Your task to perform on an android device: What's on the menu at Chick-fil-A? Image 0: 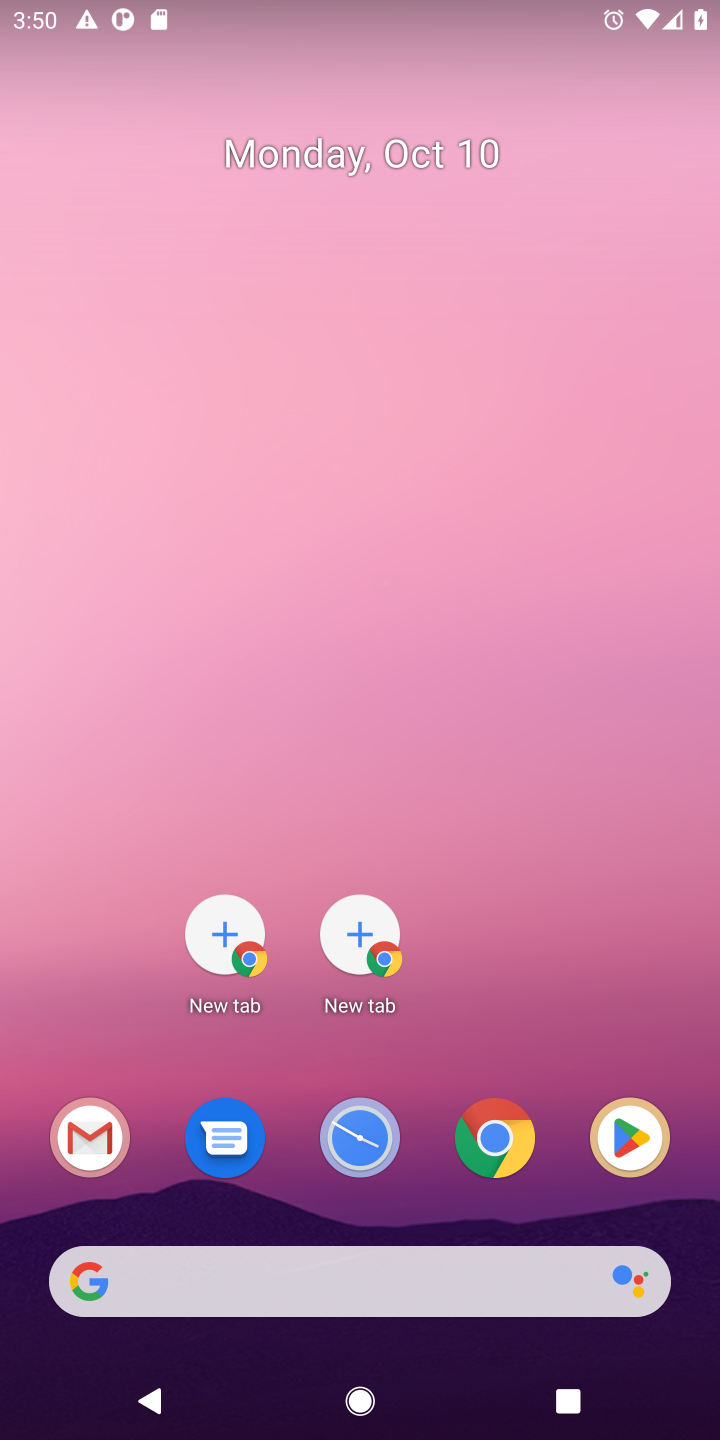
Step 0: click (473, 1152)
Your task to perform on an android device: What's on the menu at Chick-fil-A? Image 1: 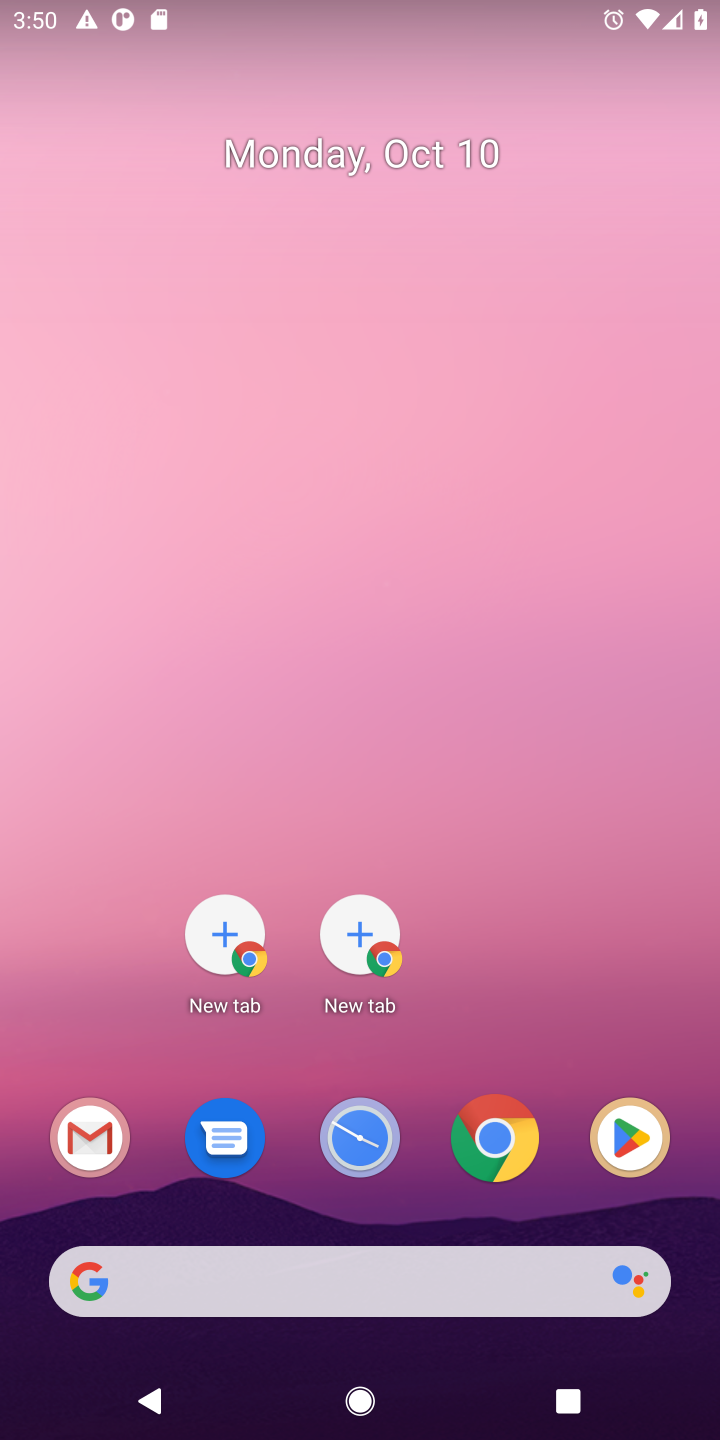
Step 1: click (473, 1152)
Your task to perform on an android device: What's on the menu at Chick-fil-A? Image 2: 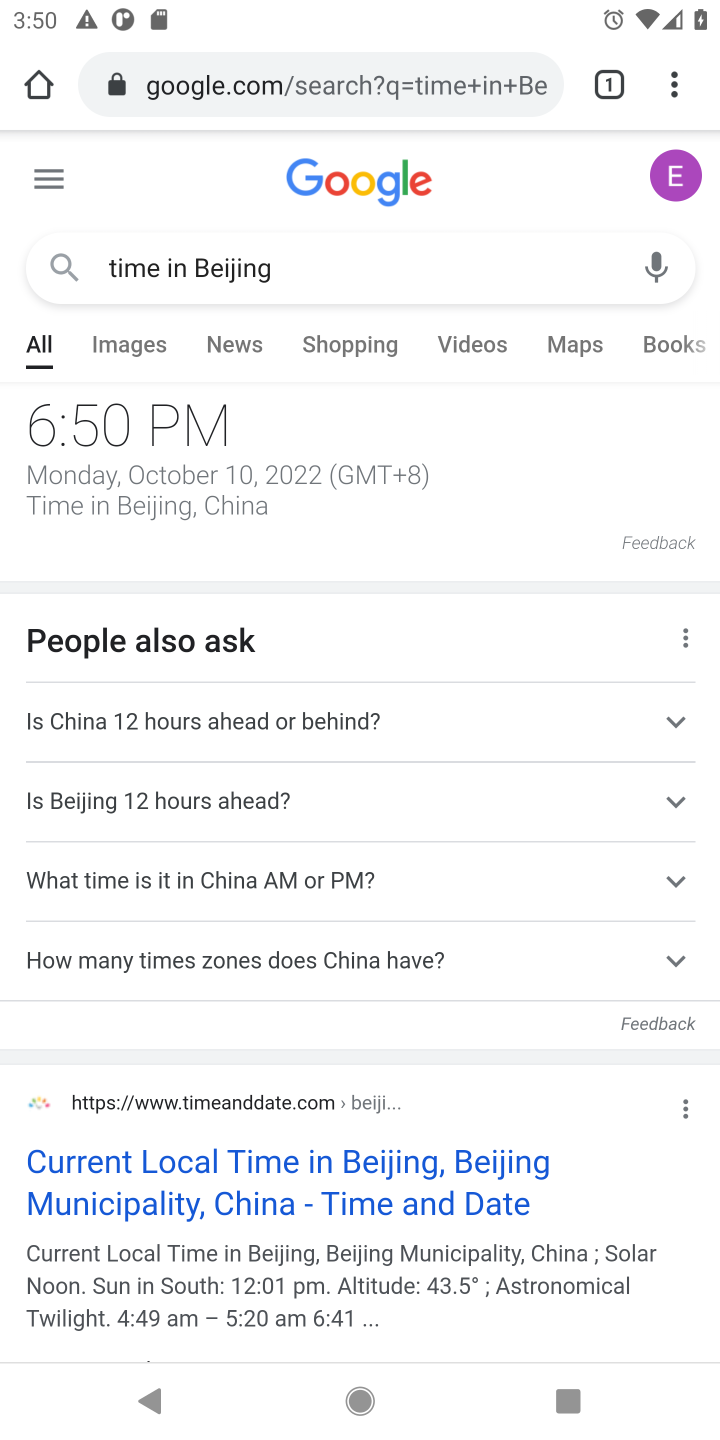
Step 2: click (260, 90)
Your task to perform on an android device: What's on the menu at Chick-fil-A? Image 3: 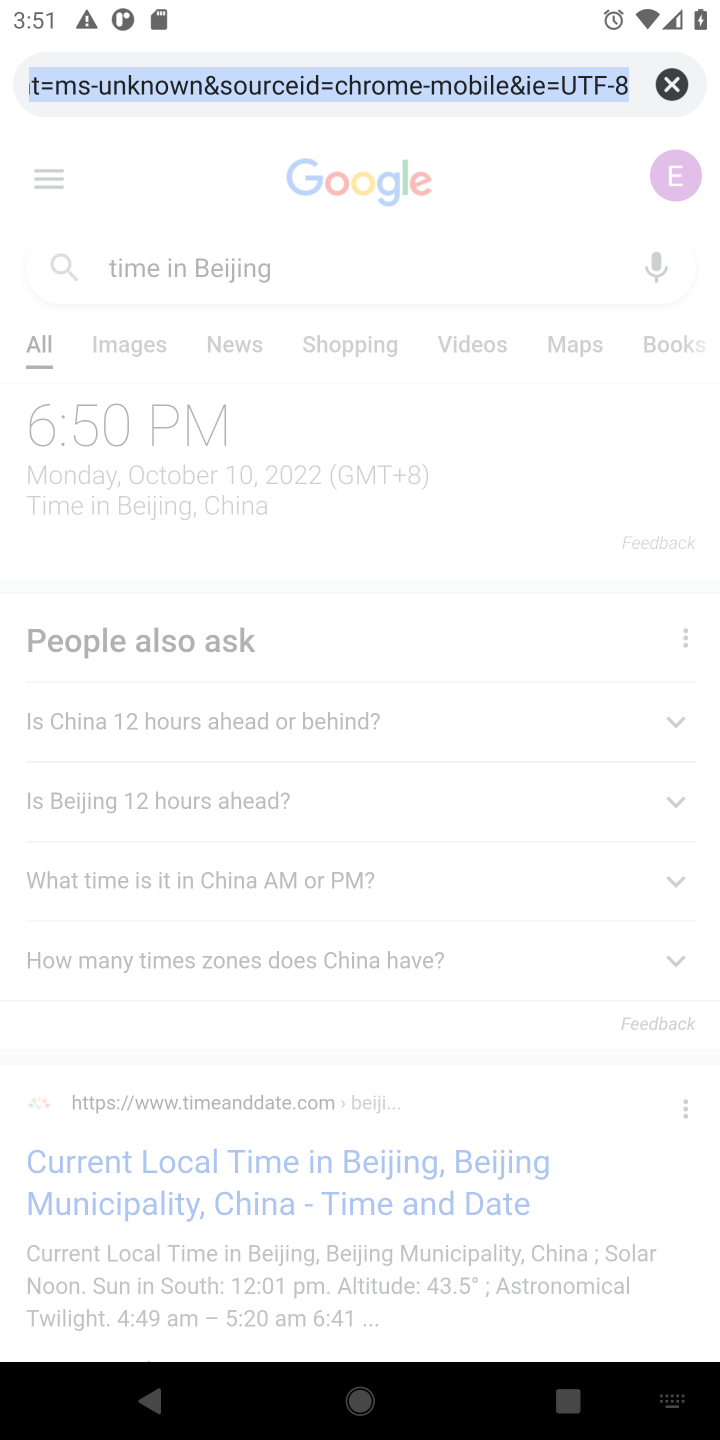
Step 3: type "chick-fil-A"
Your task to perform on an android device: What's on the menu at Chick-fil-A? Image 4: 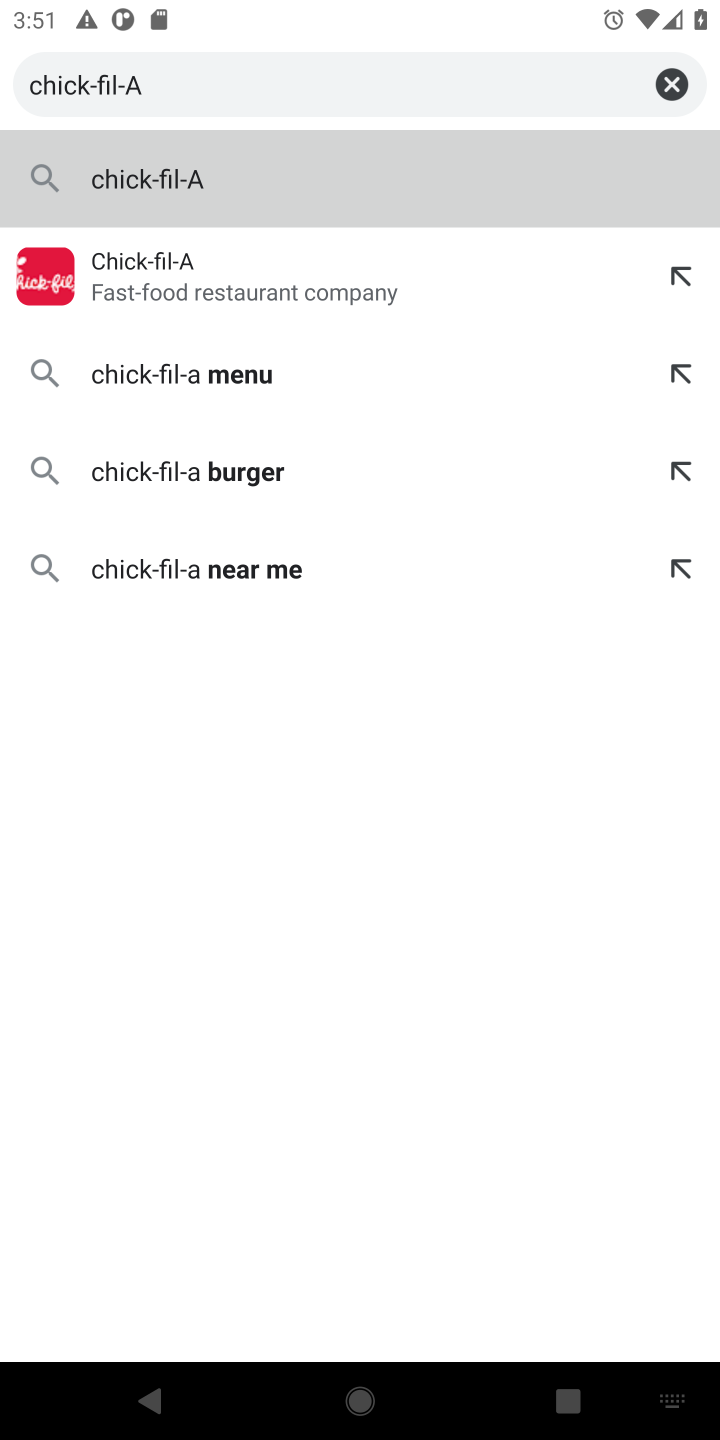
Step 4: click (360, 177)
Your task to perform on an android device: What's on the menu at Chick-fil-A? Image 5: 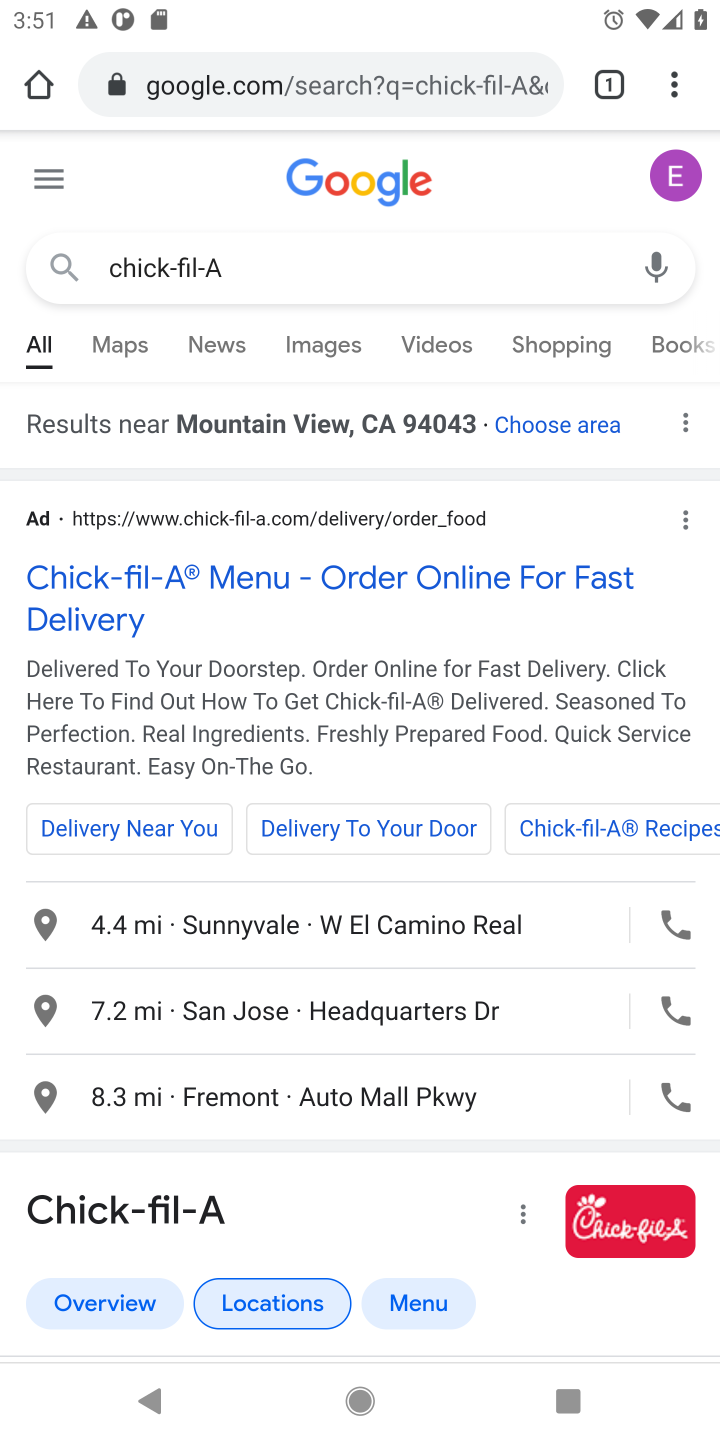
Step 5: click (294, 590)
Your task to perform on an android device: What's on the menu at Chick-fil-A? Image 6: 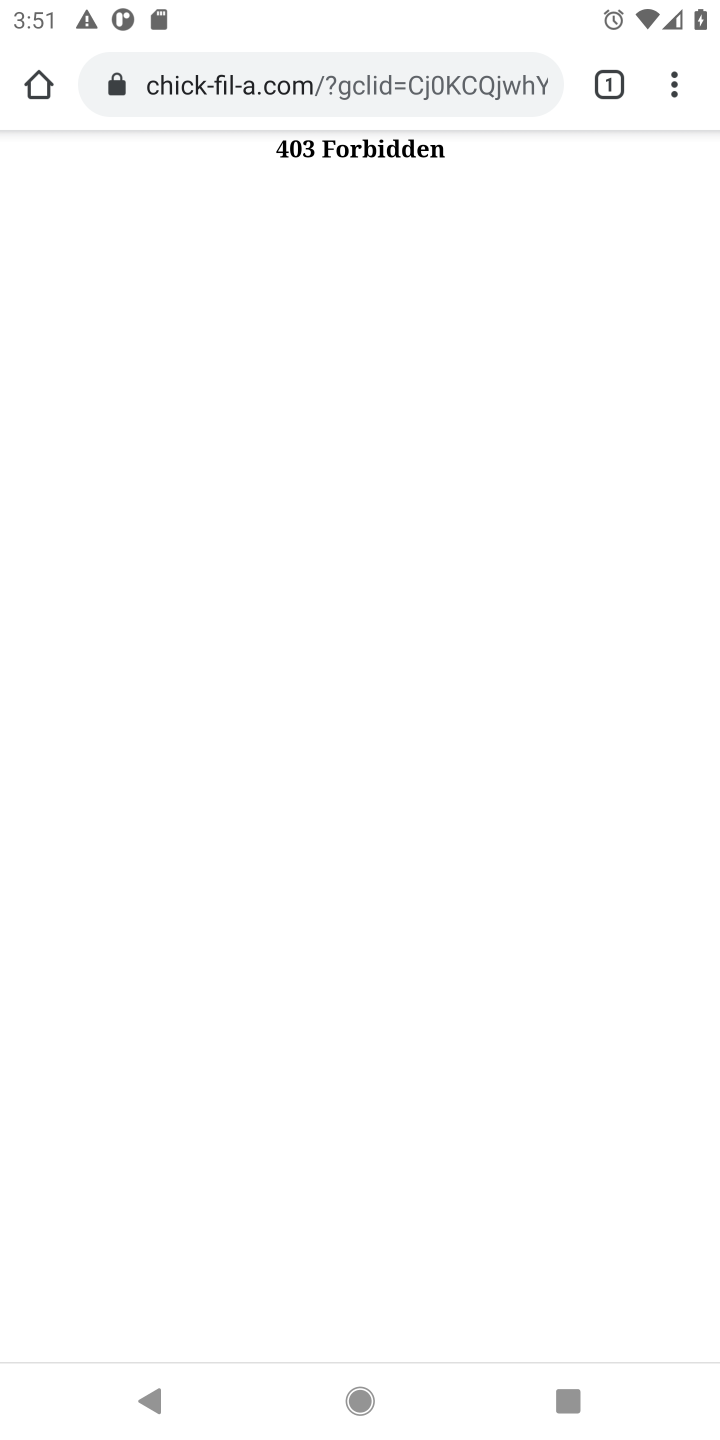
Step 6: press back button
Your task to perform on an android device: What's on the menu at Chick-fil-A? Image 7: 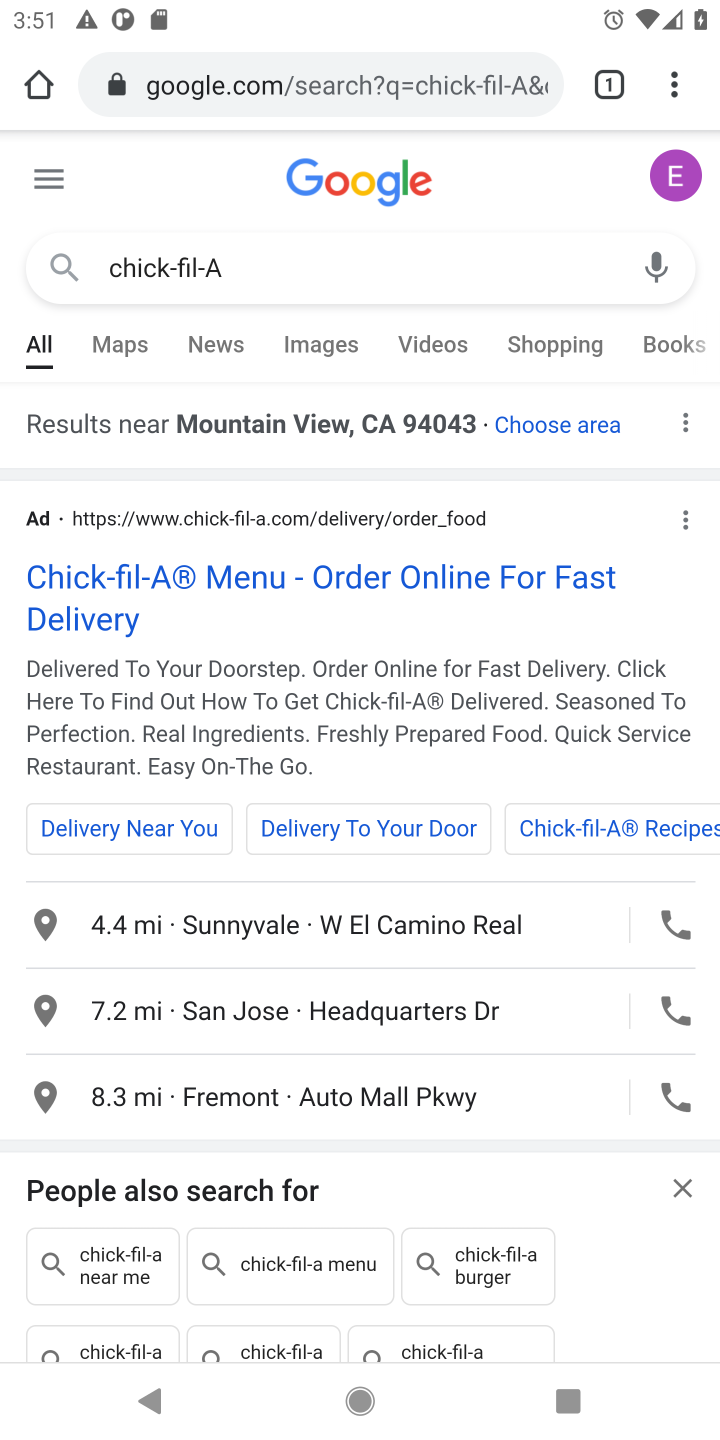
Step 7: drag from (453, 1046) to (498, 452)
Your task to perform on an android device: What's on the menu at Chick-fil-A? Image 8: 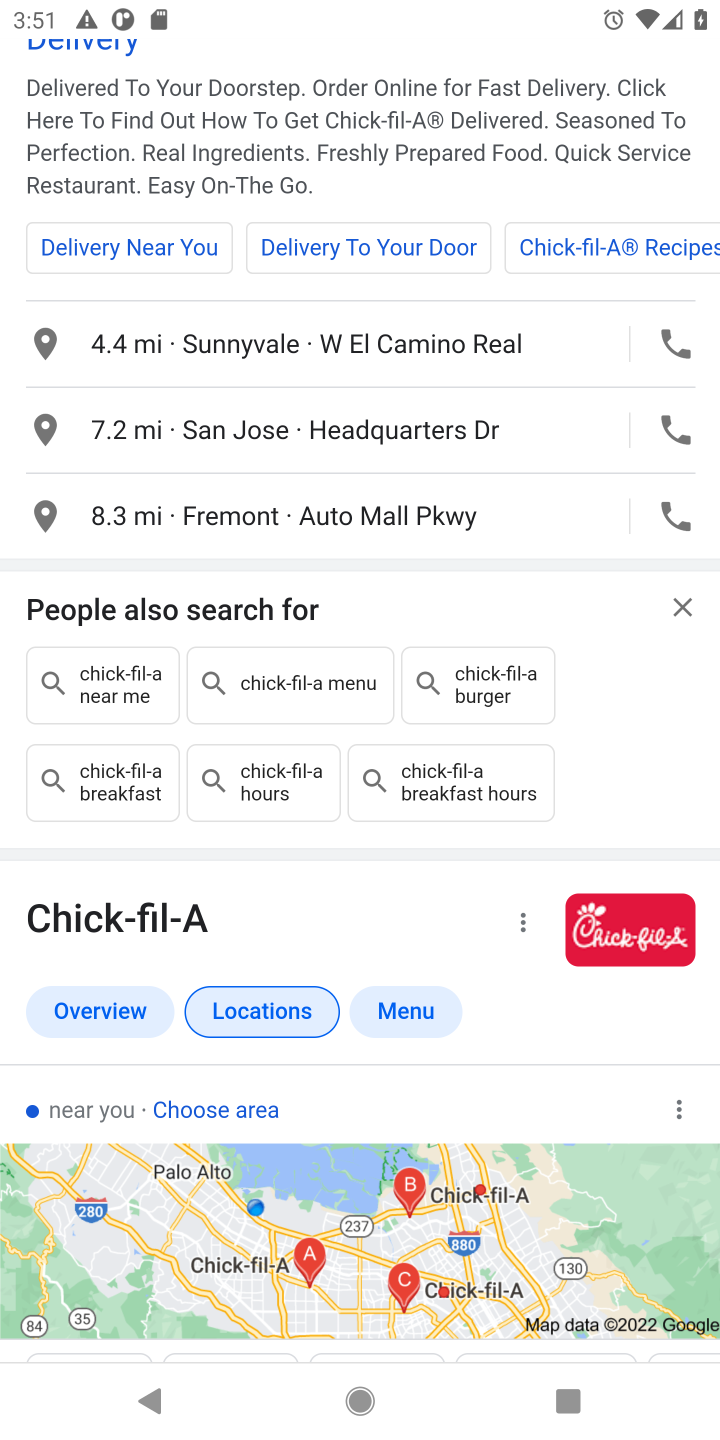
Step 8: drag from (419, 1071) to (371, 432)
Your task to perform on an android device: What's on the menu at Chick-fil-A? Image 9: 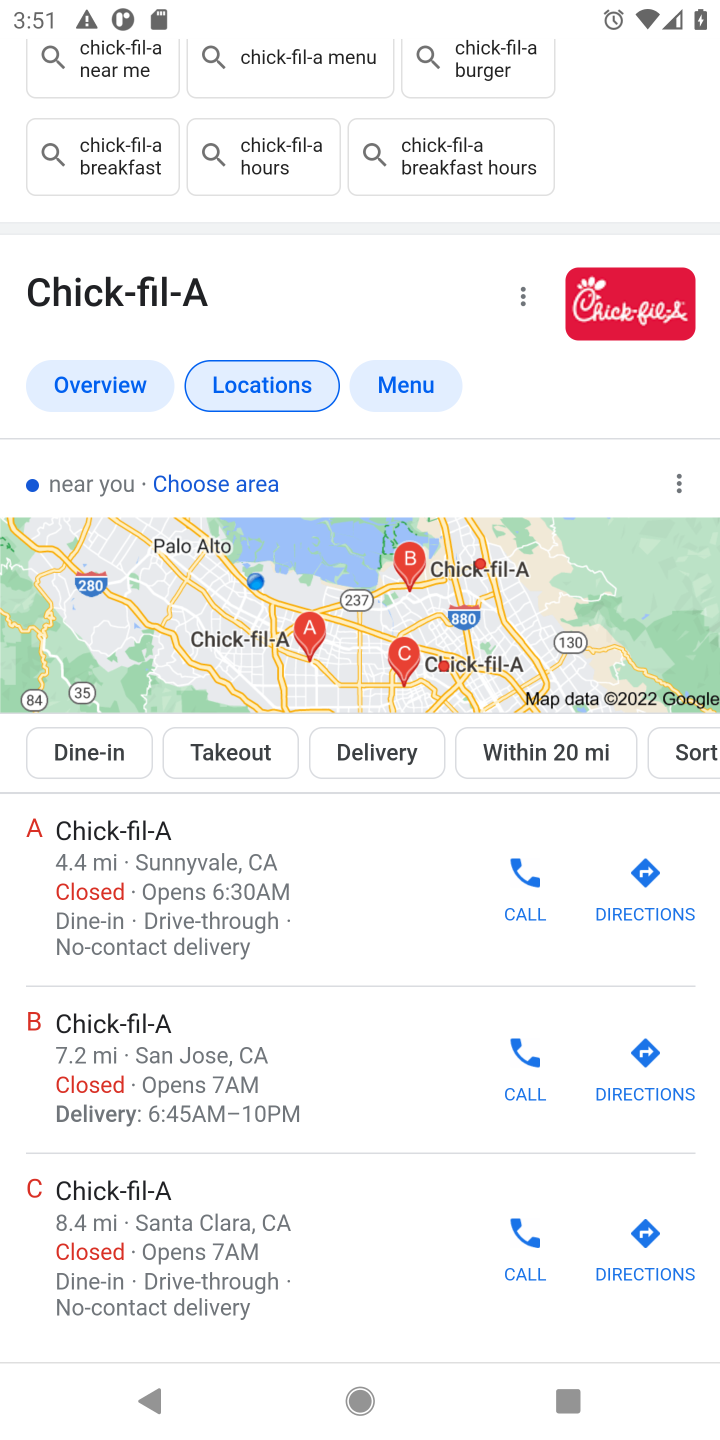
Step 9: drag from (431, 1261) to (432, 626)
Your task to perform on an android device: What's on the menu at Chick-fil-A? Image 10: 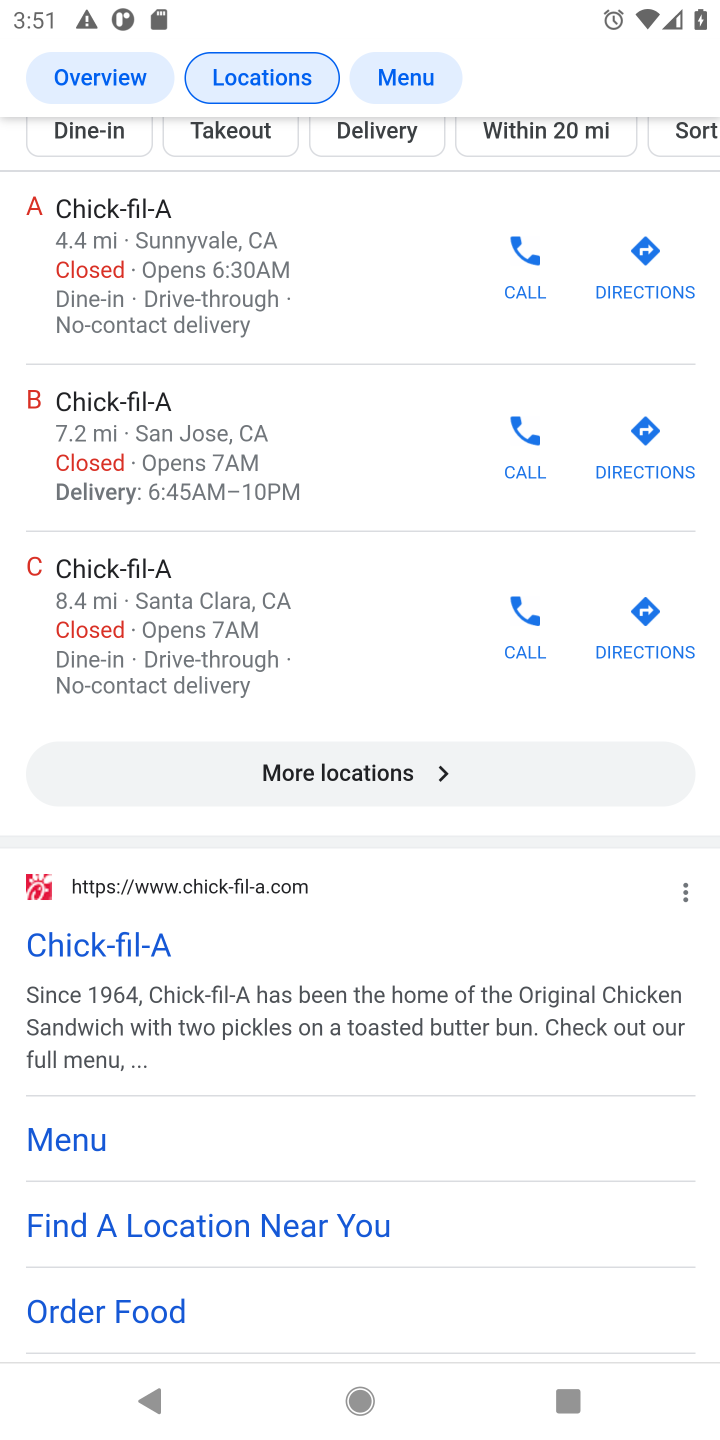
Step 10: click (76, 942)
Your task to perform on an android device: What's on the menu at Chick-fil-A? Image 11: 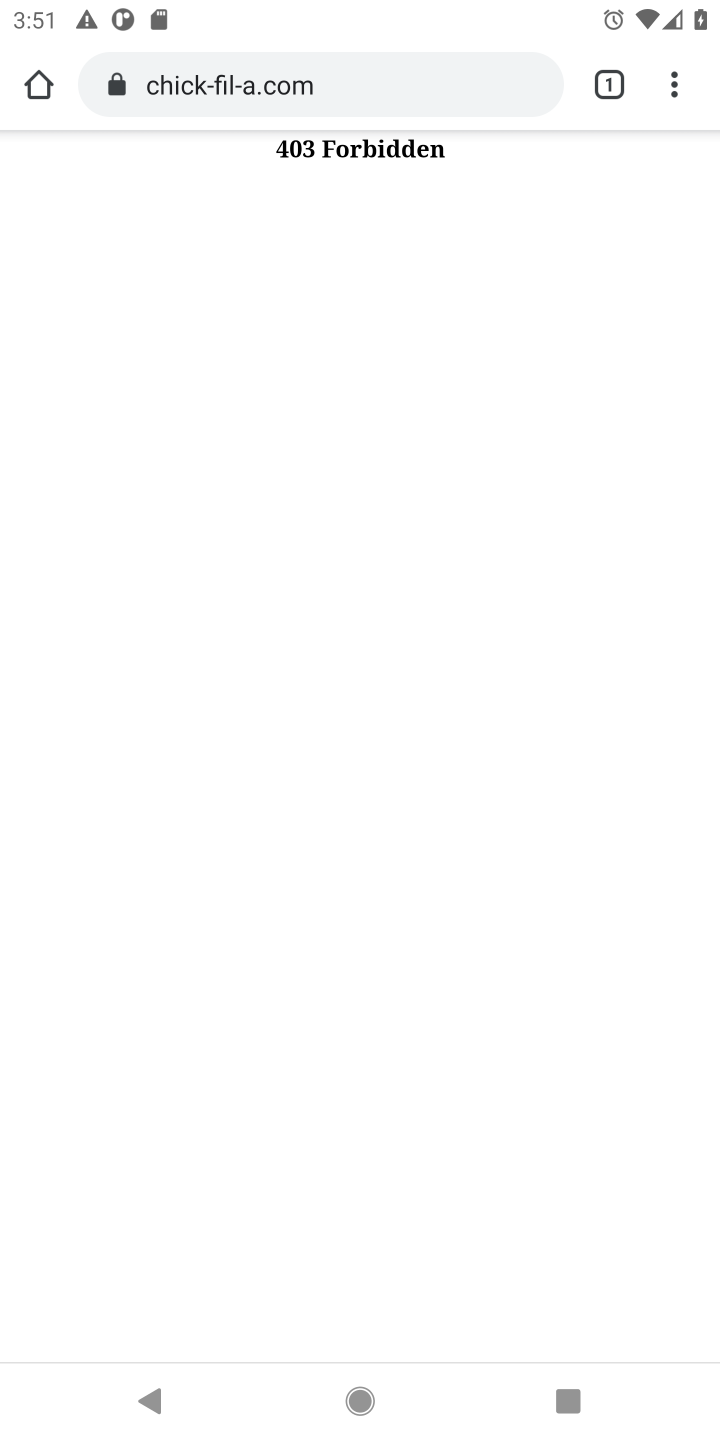
Step 11: task complete